Your task to perform on an android device: What's the weather today? Image 0: 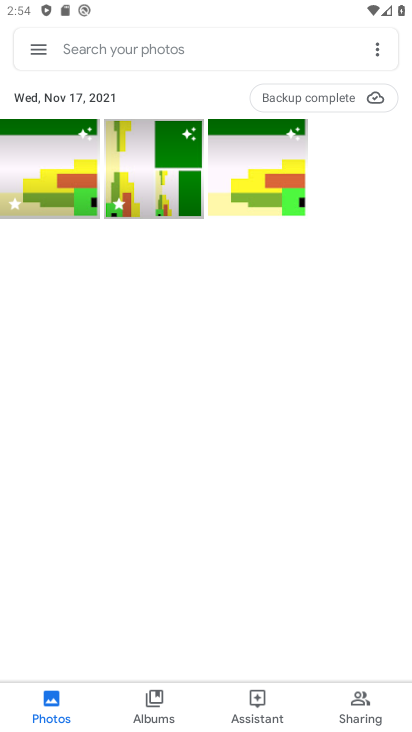
Step 0: press home button
Your task to perform on an android device: What's the weather today? Image 1: 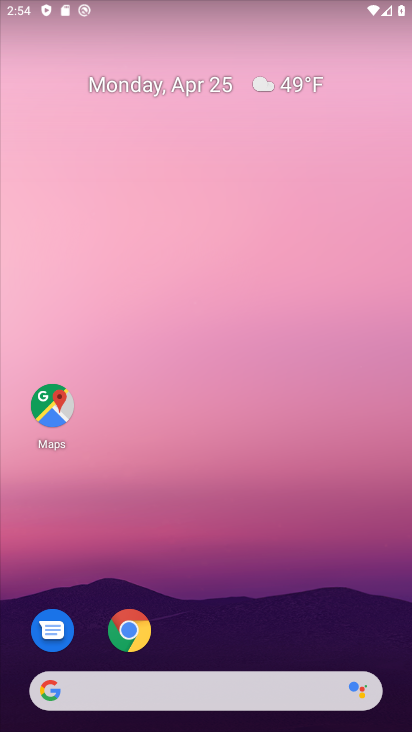
Step 1: click (42, 690)
Your task to perform on an android device: What's the weather today? Image 2: 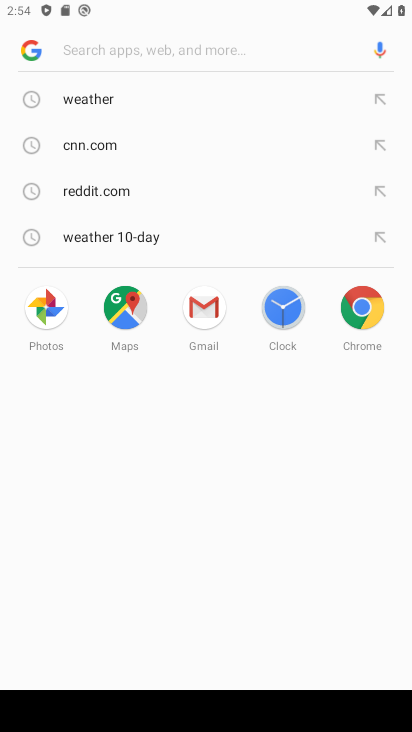
Step 2: click (70, 88)
Your task to perform on an android device: What's the weather today? Image 3: 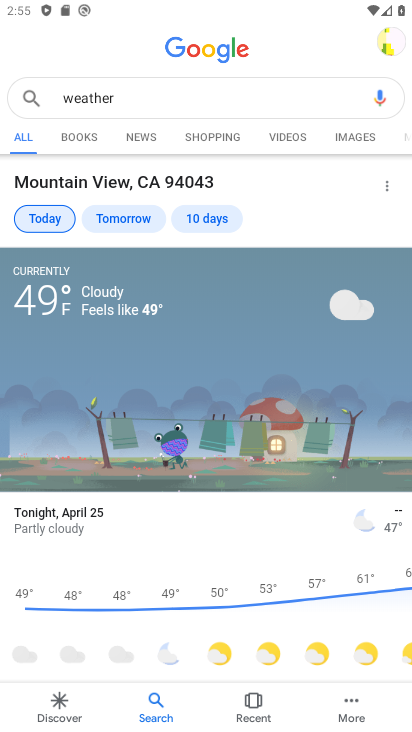
Step 3: task complete